Your task to perform on an android device: change the clock display to digital Image 0: 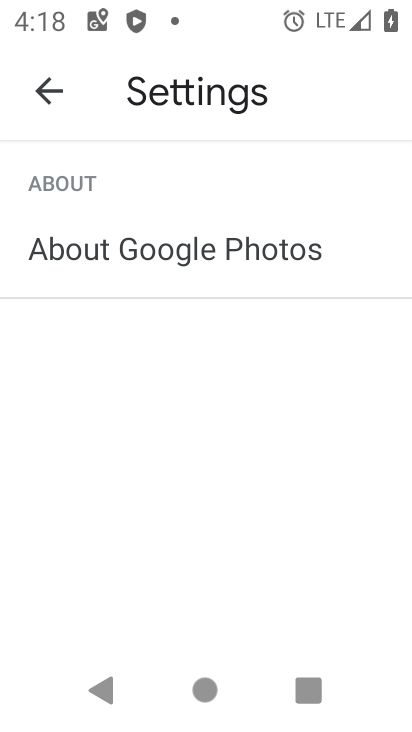
Step 0: press home button
Your task to perform on an android device: change the clock display to digital Image 1: 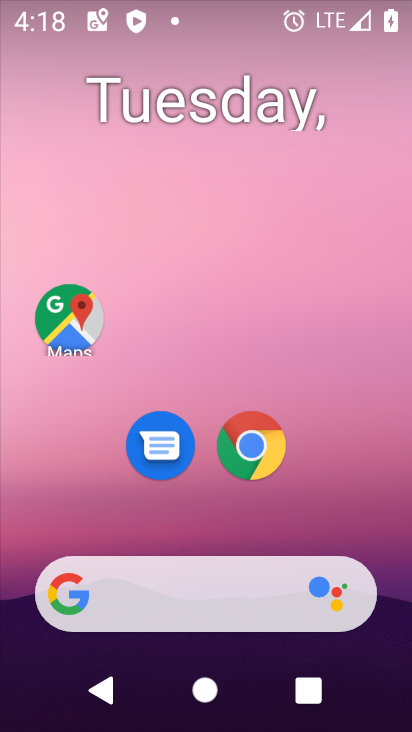
Step 1: drag from (364, 542) to (283, 0)
Your task to perform on an android device: change the clock display to digital Image 2: 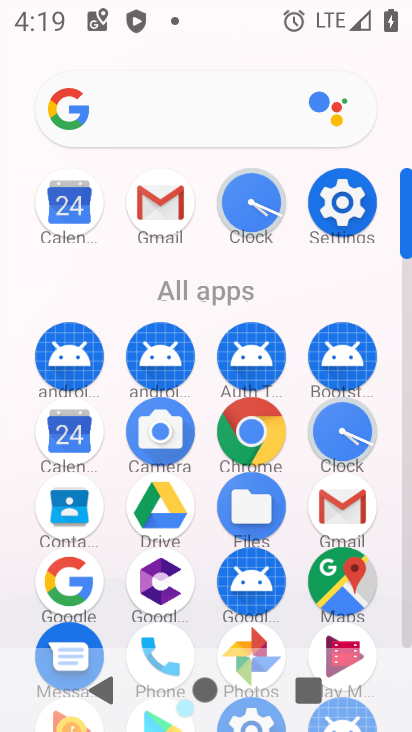
Step 2: click (335, 457)
Your task to perform on an android device: change the clock display to digital Image 3: 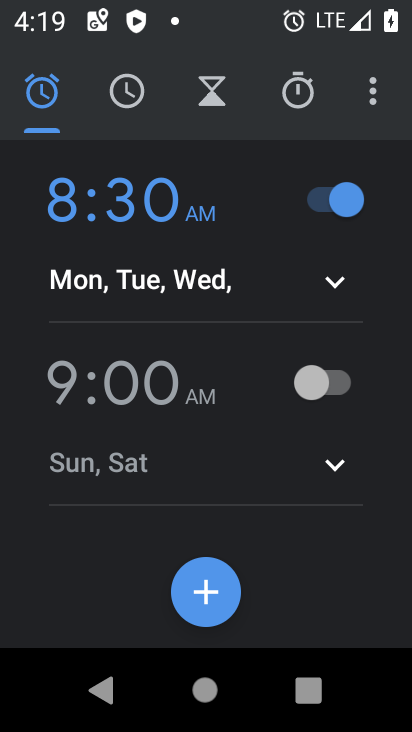
Step 3: click (372, 97)
Your task to perform on an android device: change the clock display to digital Image 4: 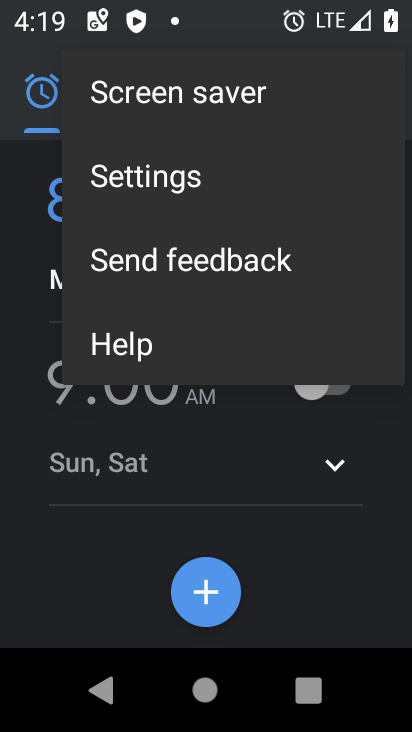
Step 4: click (209, 199)
Your task to perform on an android device: change the clock display to digital Image 5: 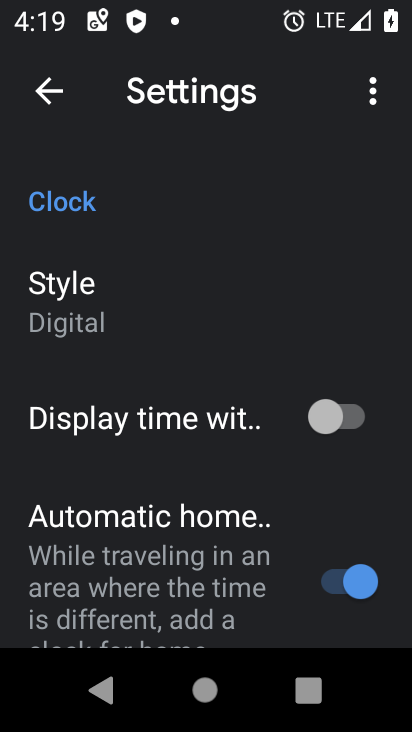
Step 5: task complete